Your task to perform on an android device: Add logitech g pro to the cart on walmart Image 0: 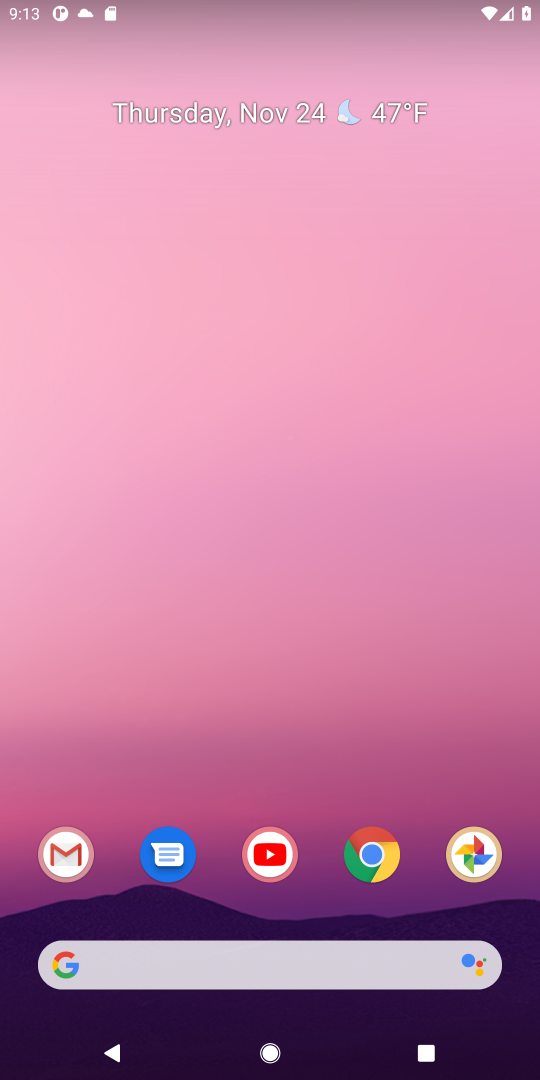
Step 0: click (363, 854)
Your task to perform on an android device: Add logitech g pro to the cart on walmart Image 1: 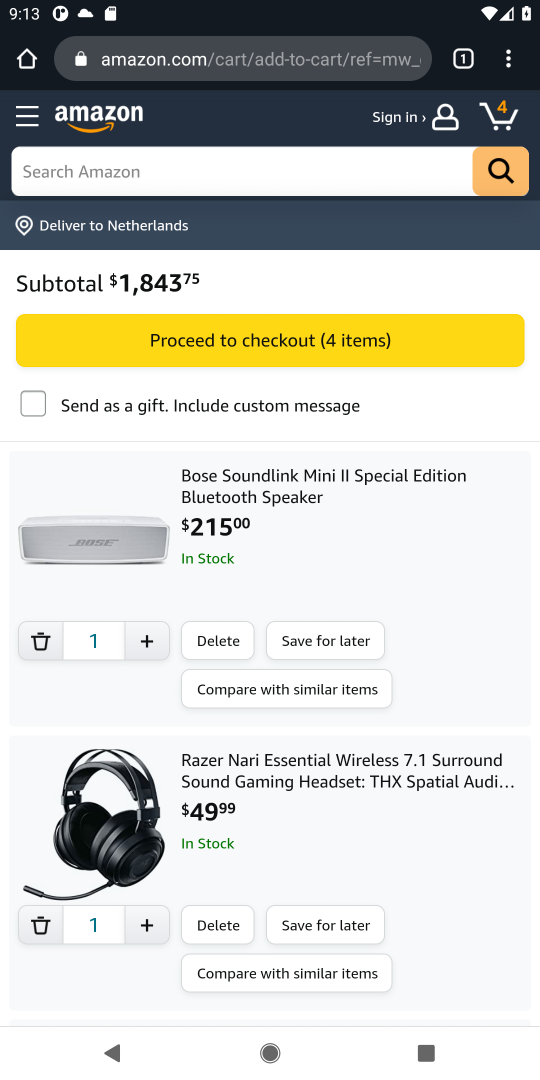
Step 1: click (226, 65)
Your task to perform on an android device: Add logitech g pro to the cart on walmart Image 2: 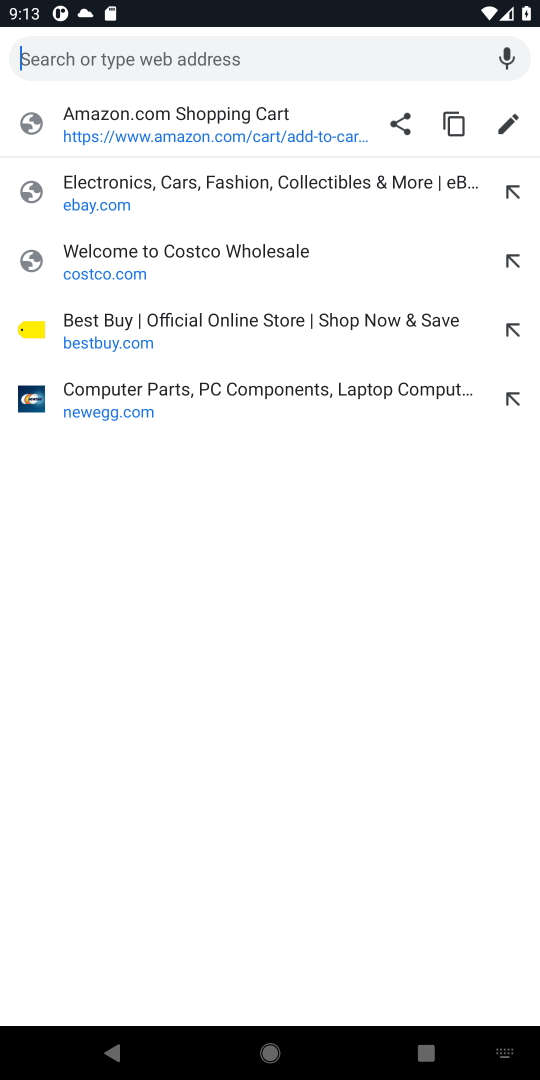
Step 2: type "walmart.com"
Your task to perform on an android device: Add logitech g pro to the cart on walmart Image 3: 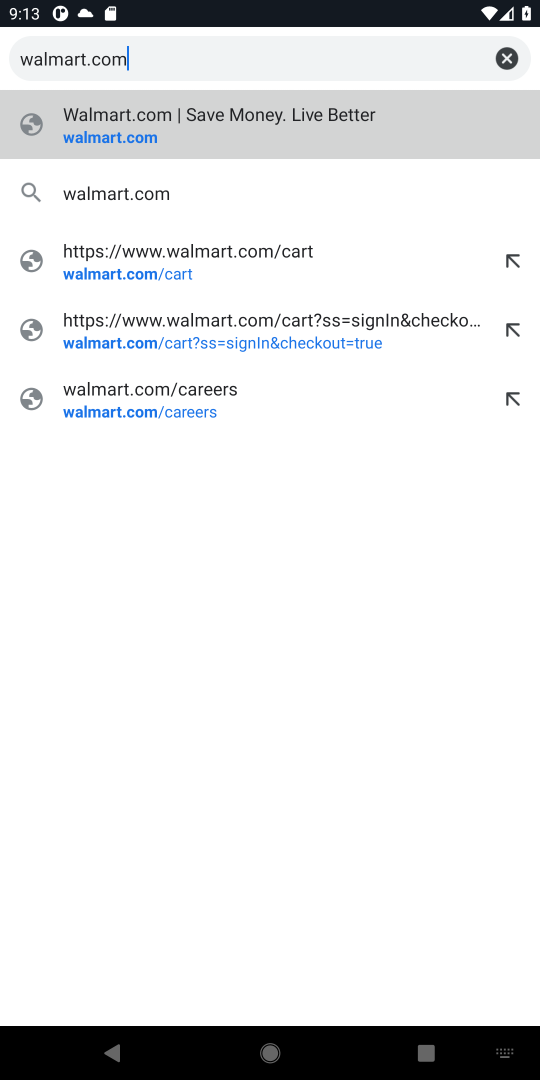
Step 3: click (98, 130)
Your task to perform on an android device: Add logitech g pro to the cart on walmart Image 4: 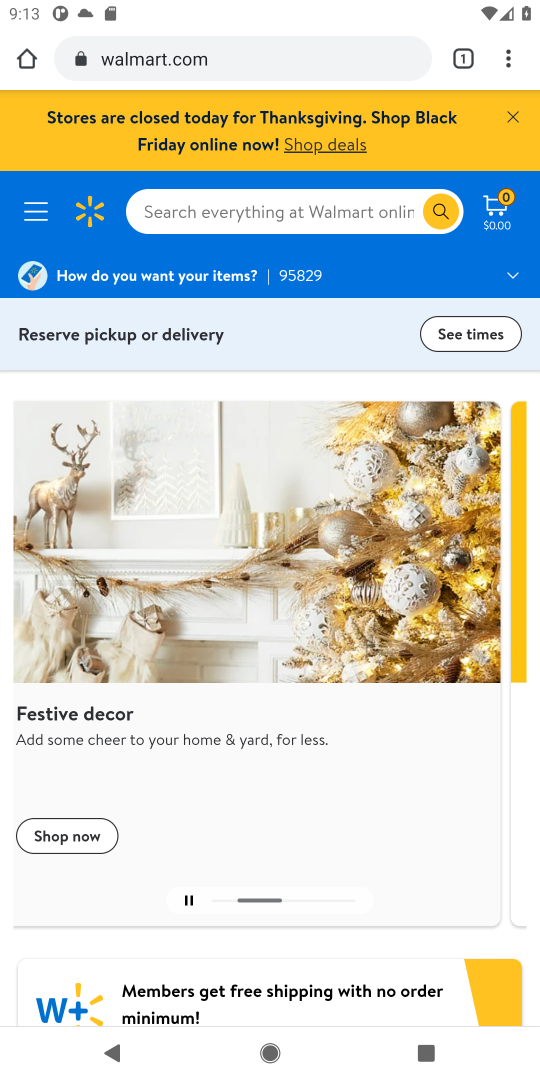
Step 4: click (165, 220)
Your task to perform on an android device: Add logitech g pro to the cart on walmart Image 5: 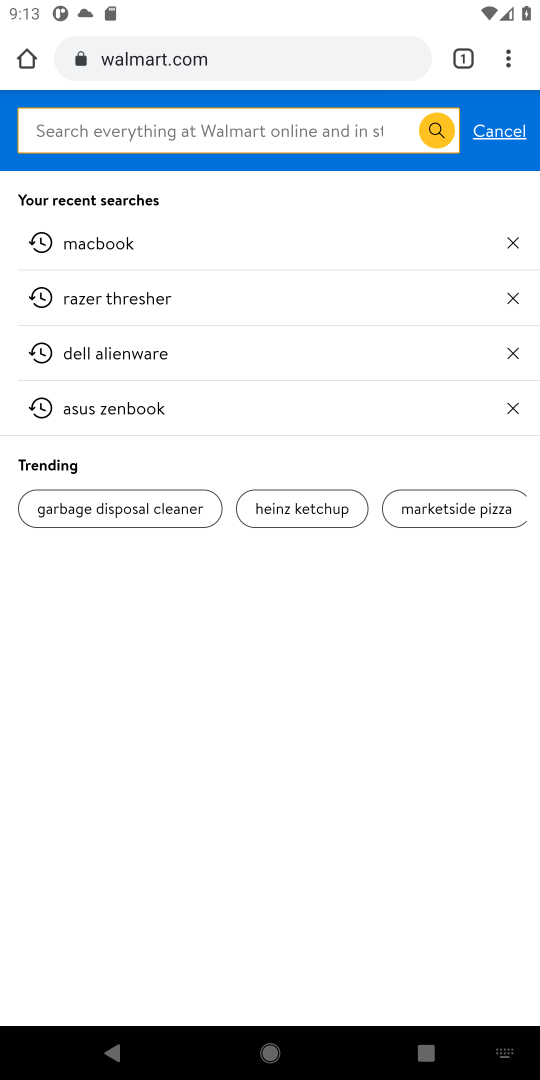
Step 5: type " logitech g pro"
Your task to perform on an android device: Add logitech g pro to the cart on walmart Image 6: 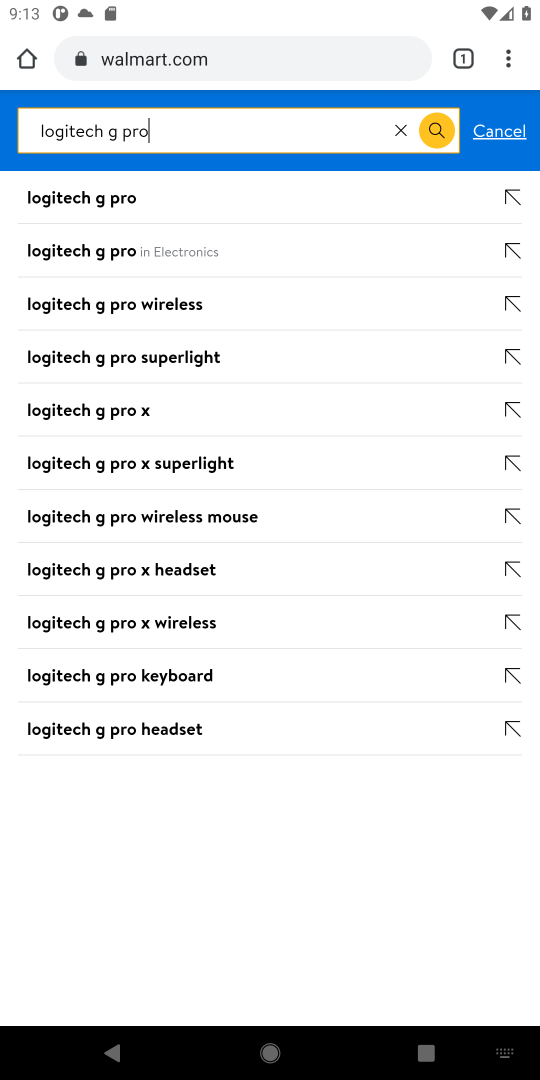
Step 6: click (80, 200)
Your task to perform on an android device: Add logitech g pro to the cart on walmart Image 7: 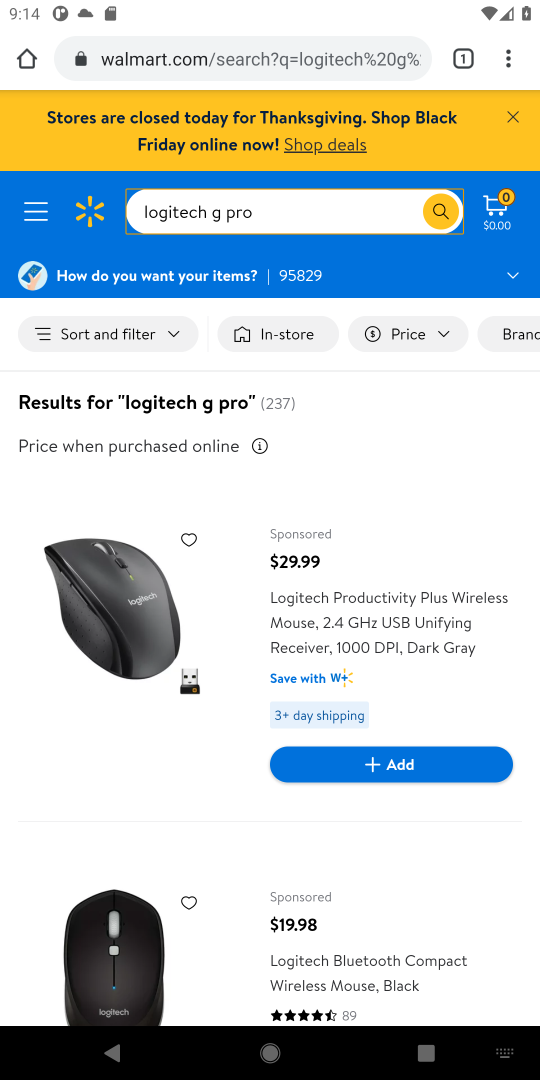
Step 7: drag from (183, 619) to (192, 342)
Your task to perform on an android device: Add logitech g pro to the cart on walmart Image 8: 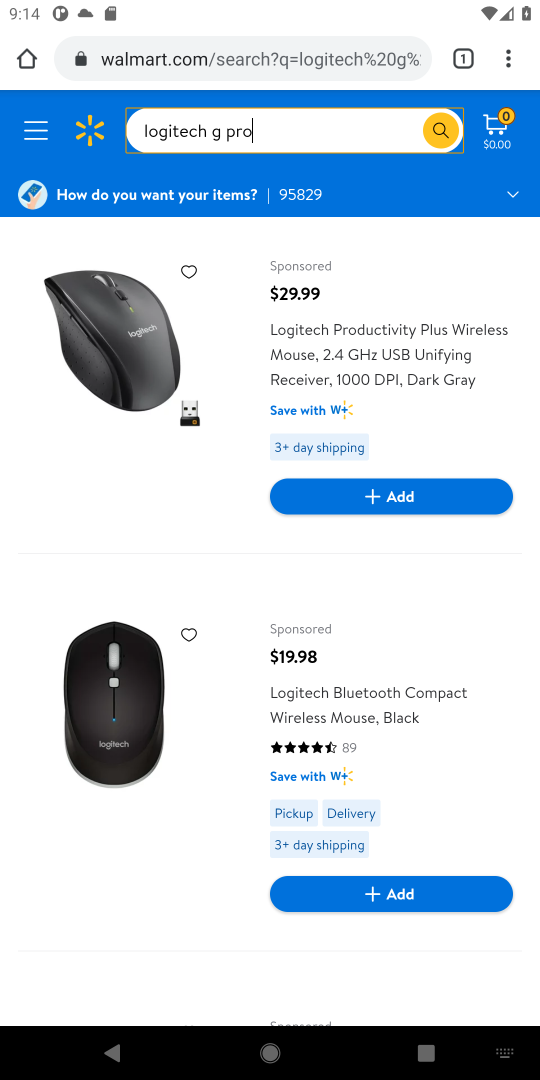
Step 8: drag from (174, 758) to (176, 357)
Your task to perform on an android device: Add logitech g pro to the cart on walmart Image 9: 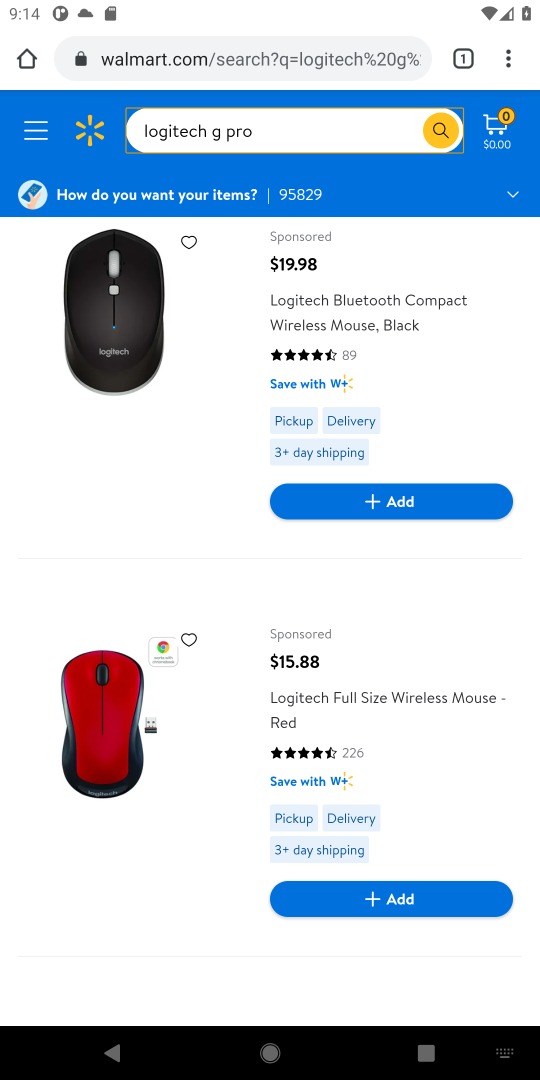
Step 9: drag from (131, 746) to (131, 311)
Your task to perform on an android device: Add logitech g pro to the cart on walmart Image 10: 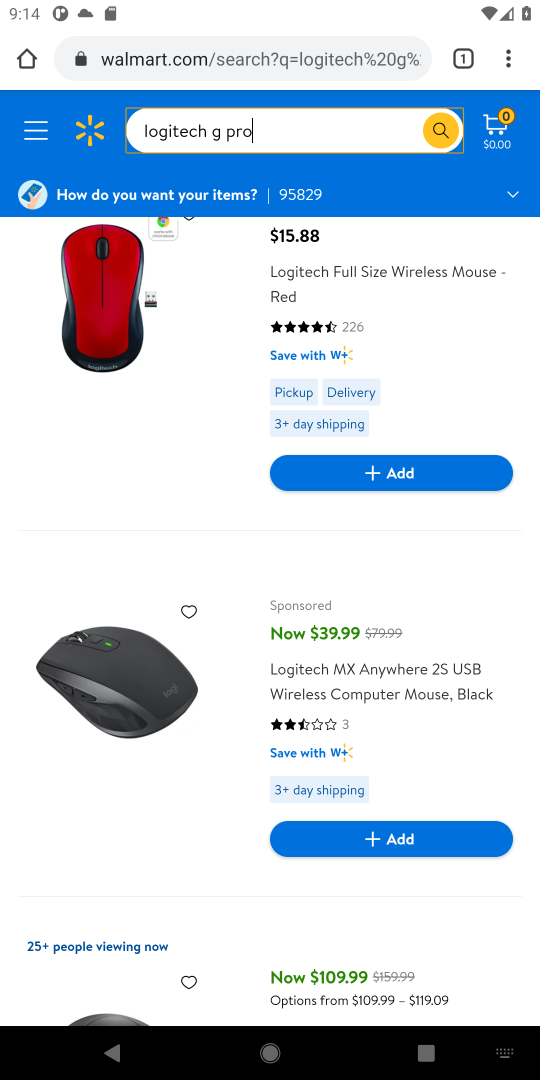
Step 10: drag from (108, 695) to (115, 279)
Your task to perform on an android device: Add logitech g pro to the cart on walmart Image 11: 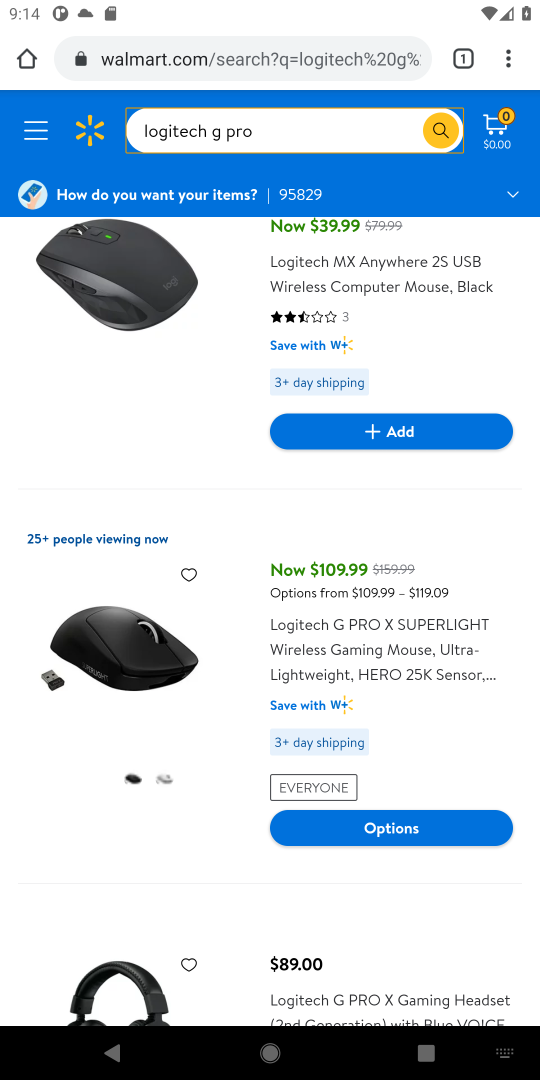
Step 11: click (165, 686)
Your task to perform on an android device: Add logitech g pro to the cart on walmart Image 12: 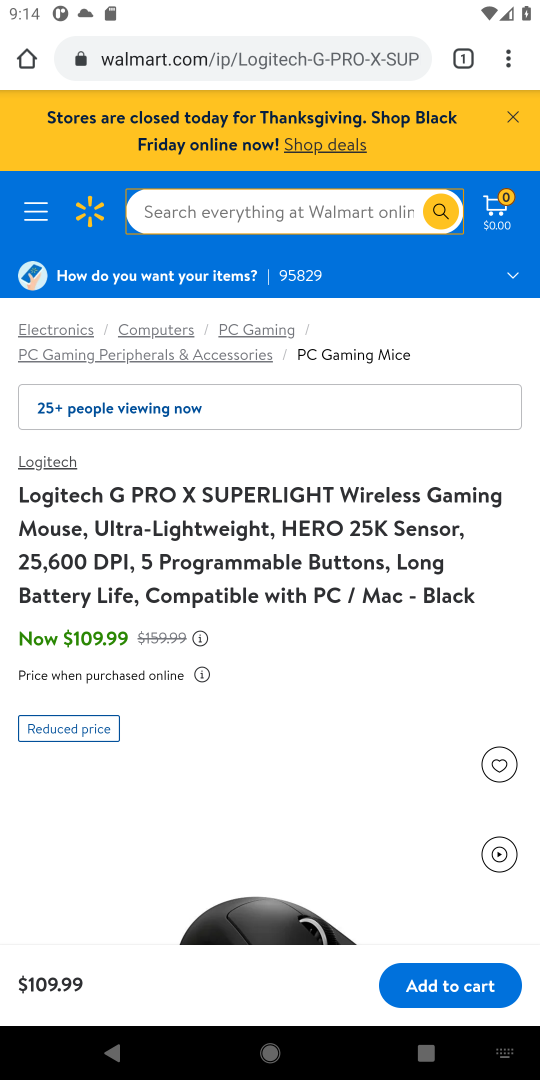
Step 12: drag from (180, 718) to (194, 605)
Your task to perform on an android device: Add logitech g pro to the cart on walmart Image 13: 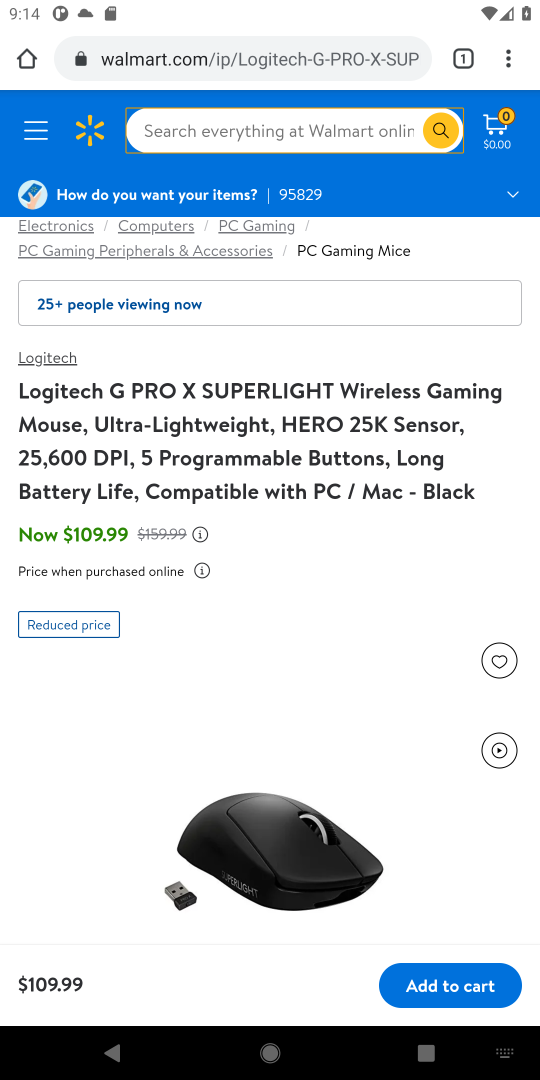
Step 13: click (445, 985)
Your task to perform on an android device: Add logitech g pro to the cart on walmart Image 14: 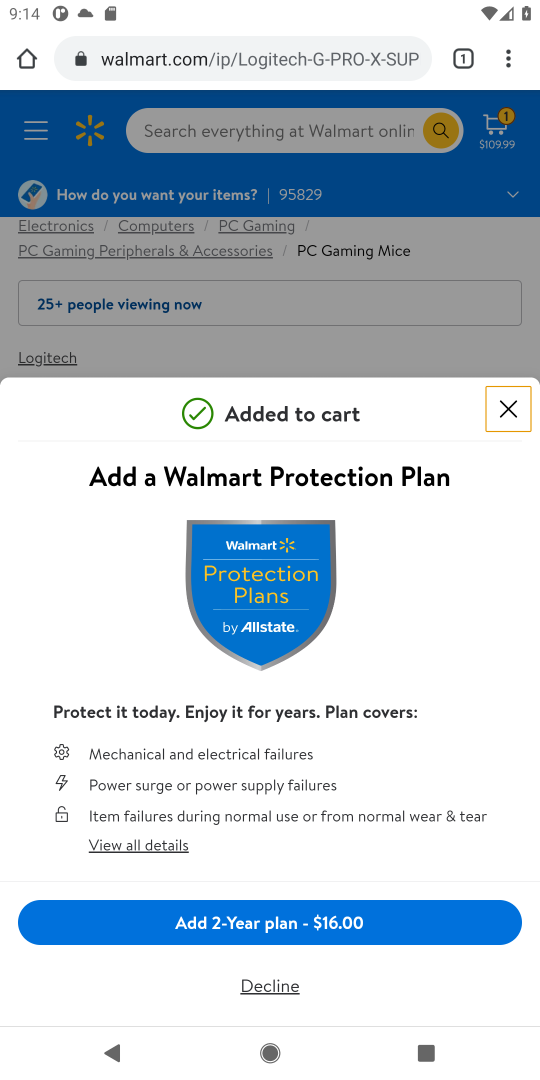
Step 14: task complete